Your task to perform on an android device: View the shopping cart on target.com. Search for amazon basics triple a on target.com, select the first entry, add it to the cart, then select checkout. Image 0: 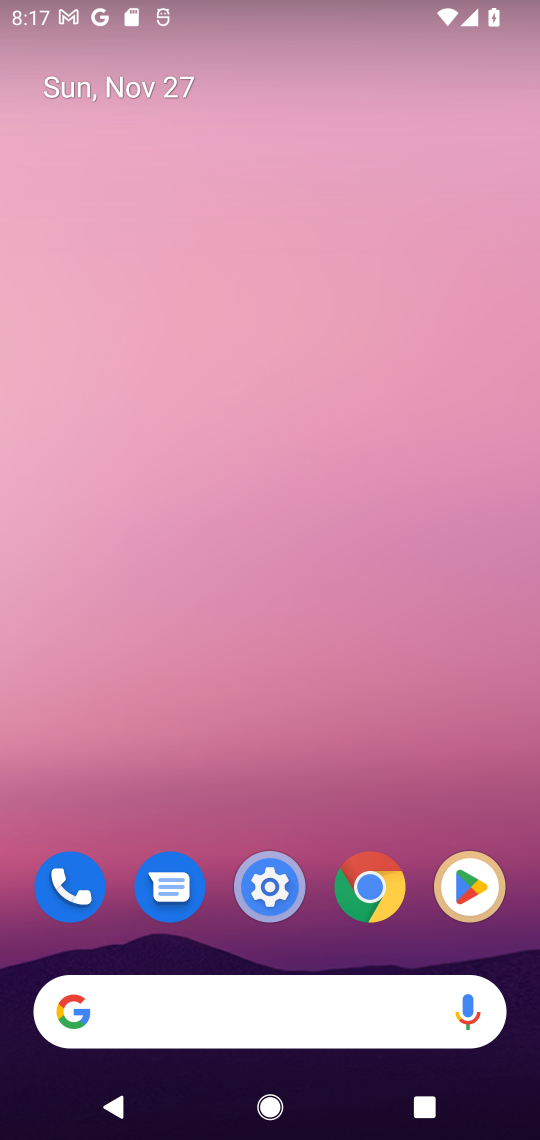
Step 0: click (334, 1020)
Your task to perform on an android device: View the shopping cart on target.com. Search for amazon basics triple a on target.com, select the first entry, add it to the cart, then select checkout. Image 1: 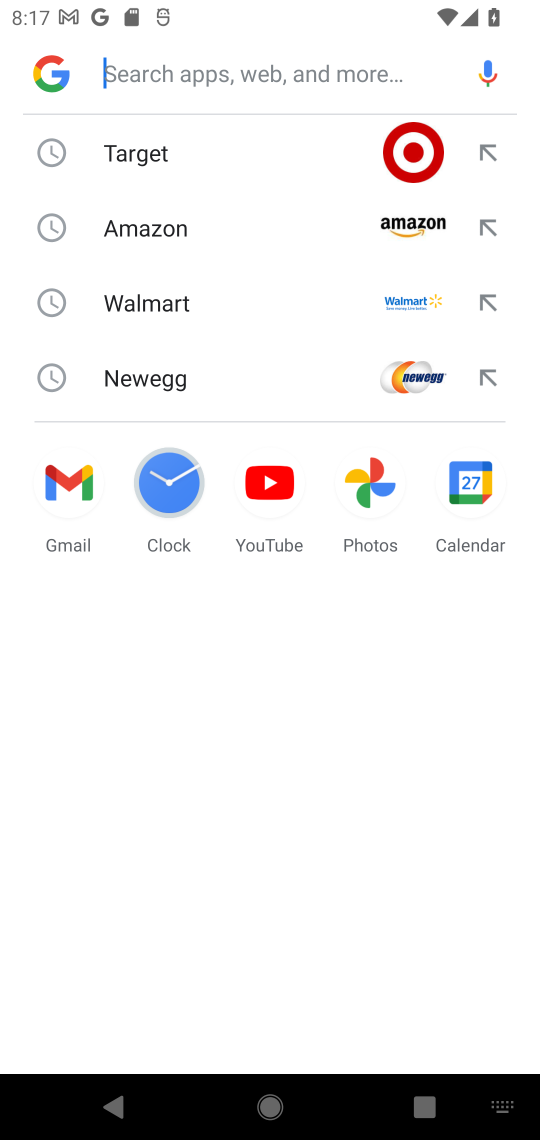
Step 1: type "amazon basic triple"
Your task to perform on an android device: View the shopping cart on target.com. Search for amazon basics triple a on target.com, select the first entry, add it to the cart, then select checkout. Image 2: 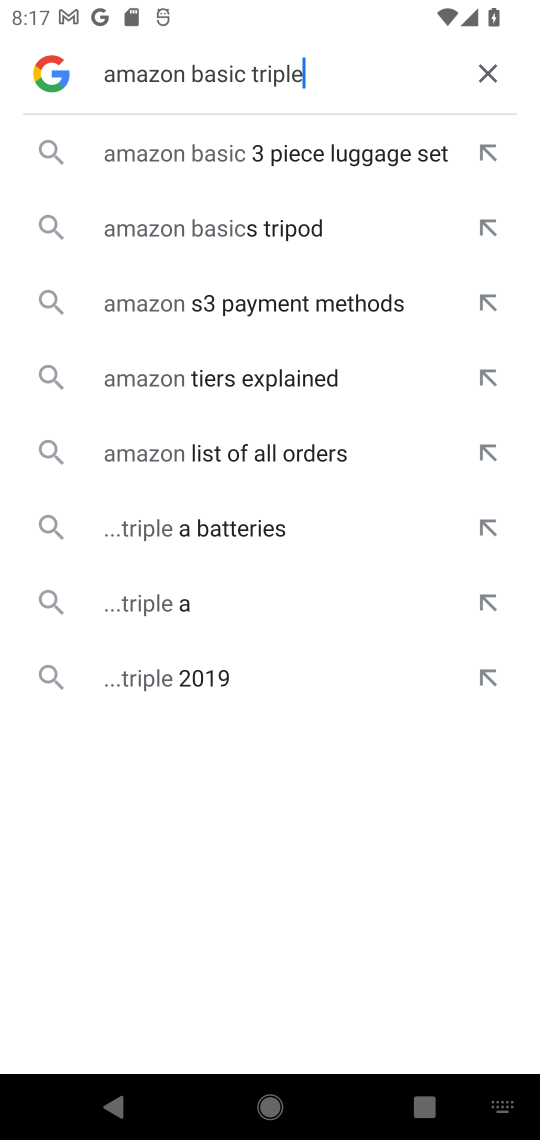
Step 2: click (215, 169)
Your task to perform on an android device: View the shopping cart on target.com. Search for amazon basics triple a on target.com, select the first entry, add it to the cart, then select checkout. Image 3: 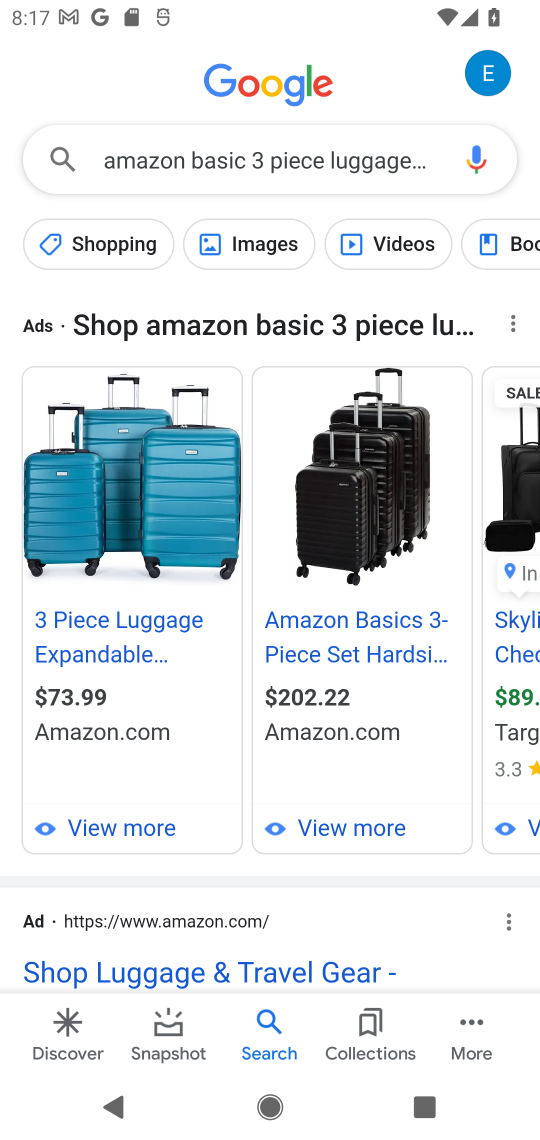
Step 3: click (141, 736)
Your task to perform on an android device: View the shopping cart on target.com. Search for amazon basics triple a on target.com, select the first entry, add it to the cart, then select checkout. Image 4: 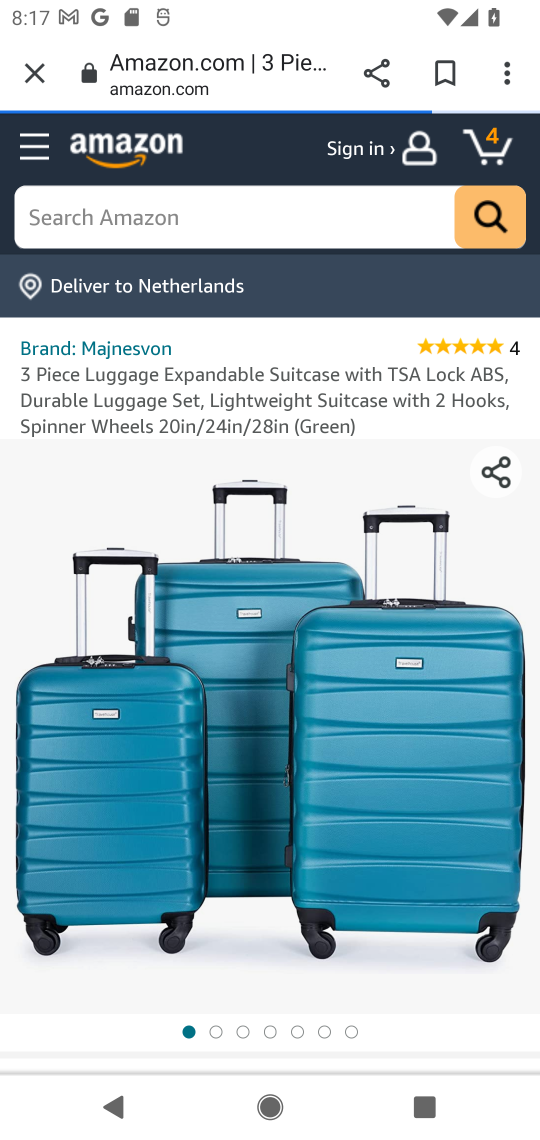
Step 4: task complete